Your task to perform on an android device: Open location settings Image 0: 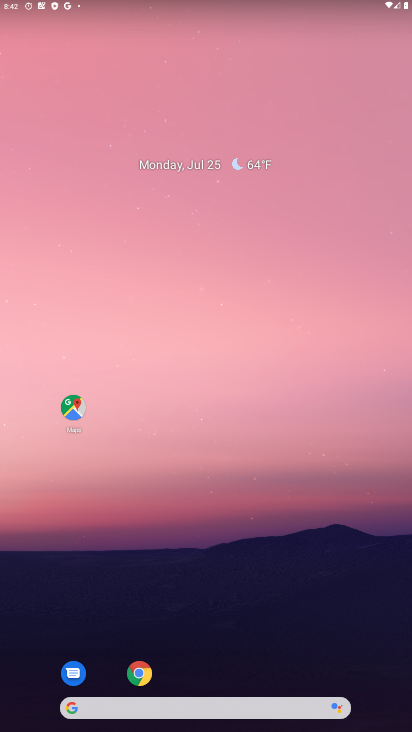
Step 0: drag from (191, 669) to (203, 11)
Your task to perform on an android device: Open location settings Image 1: 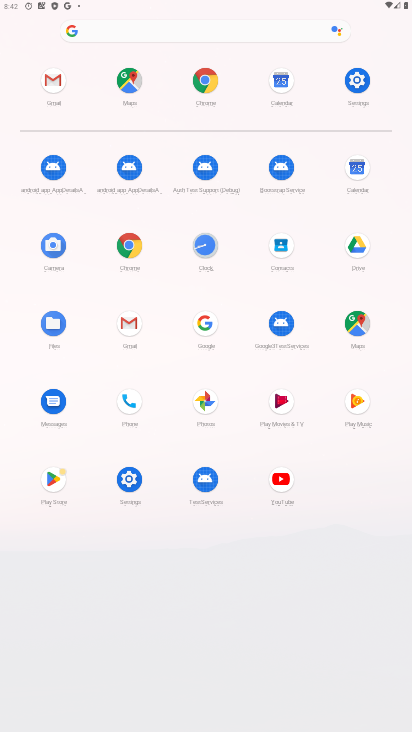
Step 1: click (120, 477)
Your task to perform on an android device: Open location settings Image 2: 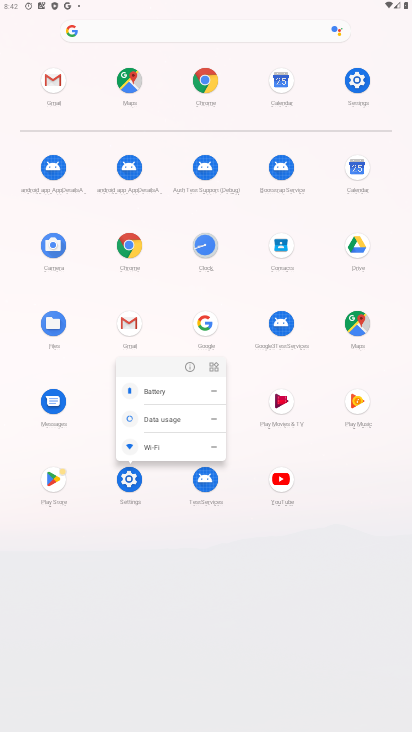
Step 2: click (191, 361)
Your task to perform on an android device: Open location settings Image 3: 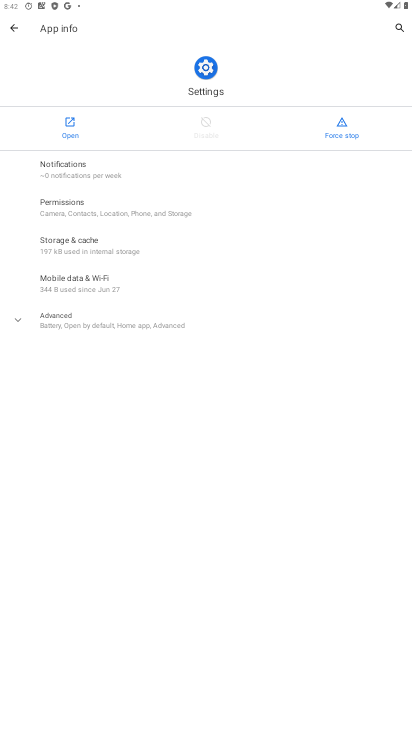
Step 3: click (65, 135)
Your task to perform on an android device: Open location settings Image 4: 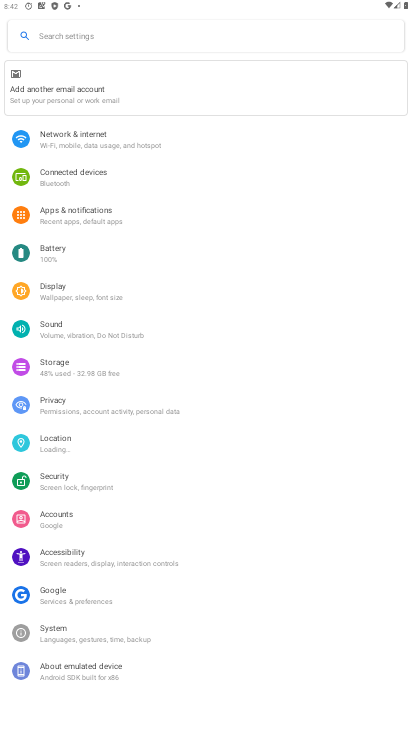
Step 4: drag from (224, 614) to (265, 189)
Your task to perform on an android device: Open location settings Image 5: 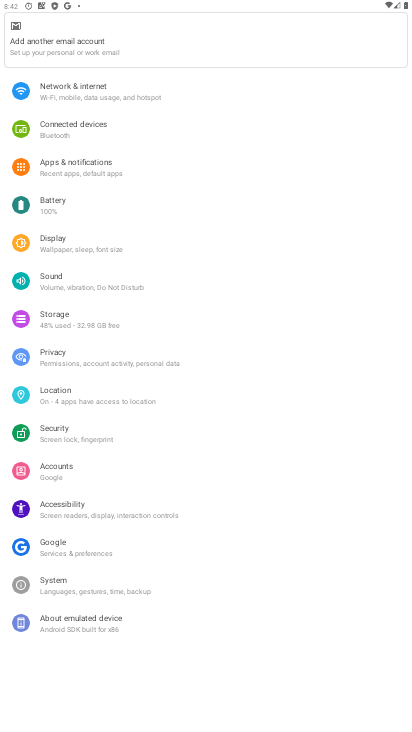
Step 5: click (67, 401)
Your task to perform on an android device: Open location settings Image 6: 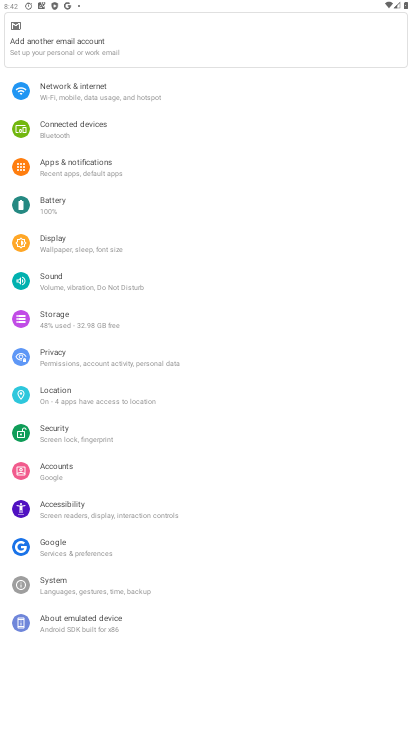
Step 6: click (67, 401)
Your task to perform on an android device: Open location settings Image 7: 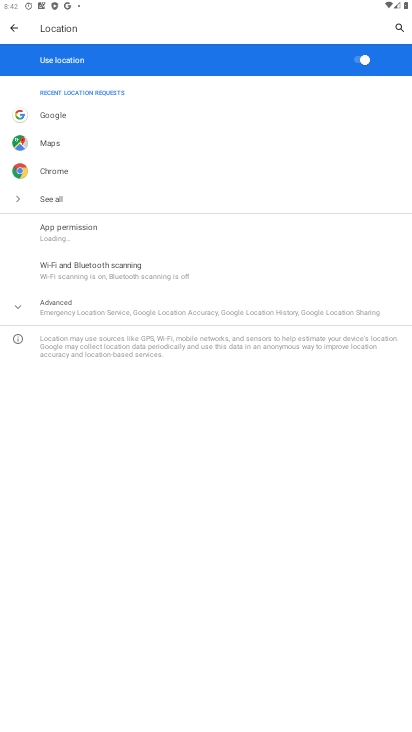
Step 7: click (71, 297)
Your task to perform on an android device: Open location settings Image 8: 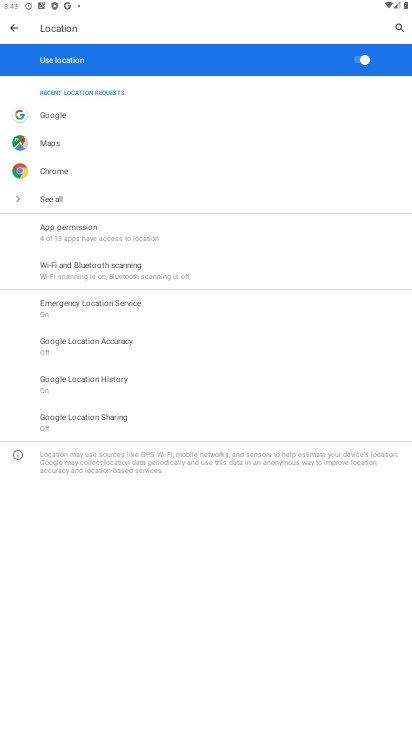
Step 8: task complete